Your task to perform on an android device: turn off priority inbox in the gmail app Image 0: 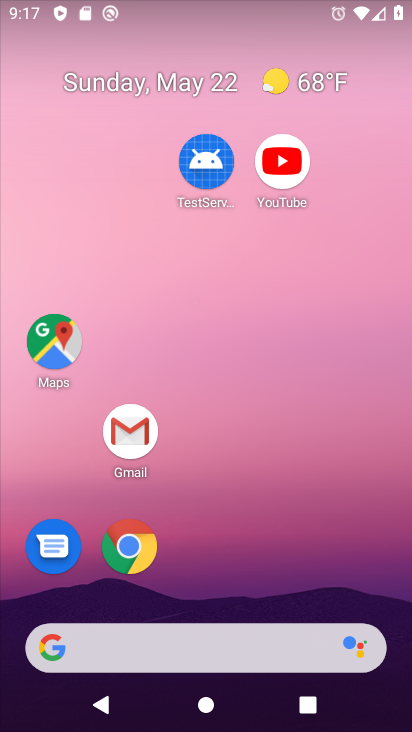
Step 0: drag from (229, 7) to (392, 217)
Your task to perform on an android device: turn off priority inbox in the gmail app Image 1: 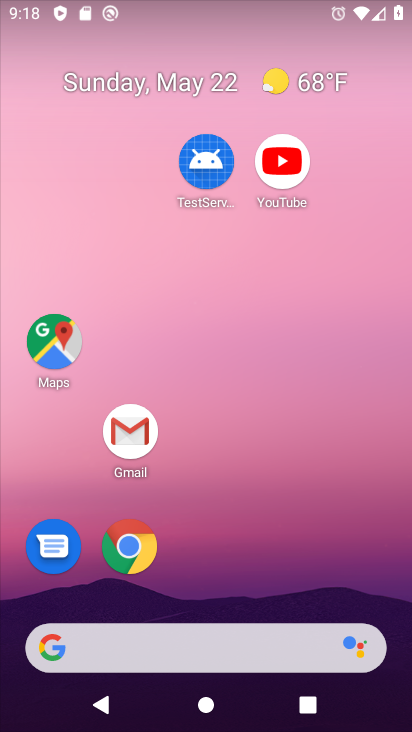
Step 1: click (278, 78)
Your task to perform on an android device: turn off priority inbox in the gmail app Image 2: 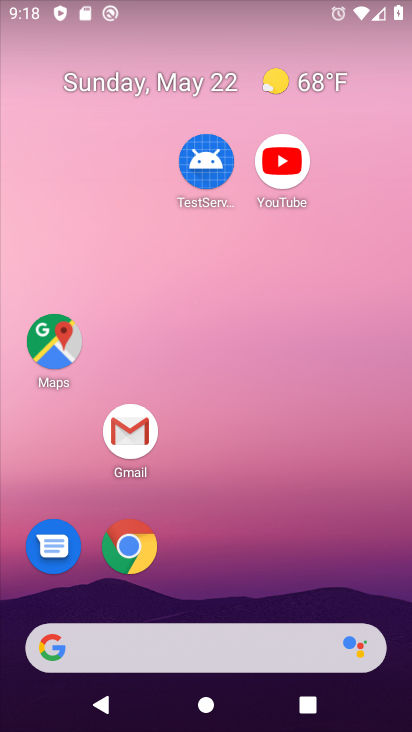
Step 2: click (253, 48)
Your task to perform on an android device: turn off priority inbox in the gmail app Image 3: 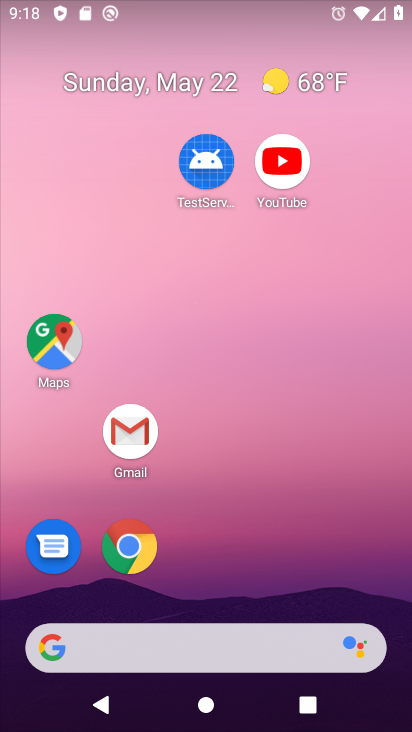
Step 3: click (243, 247)
Your task to perform on an android device: turn off priority inbox in the gmail app Image 4: 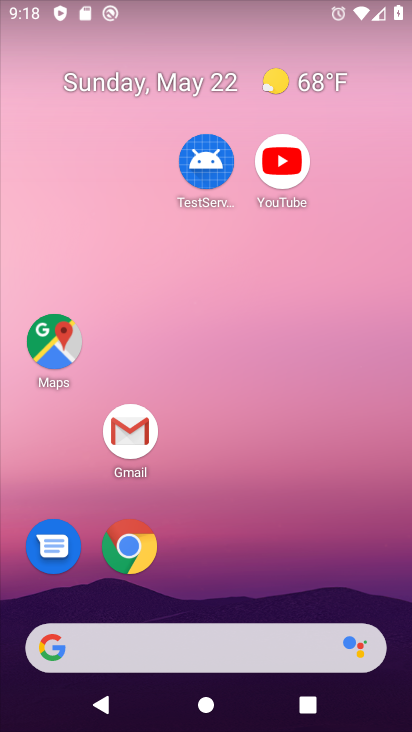
Step 4: click (240, 203)
Your task to perform on an android device: turn off priority inbox in the gmail app Image 5: 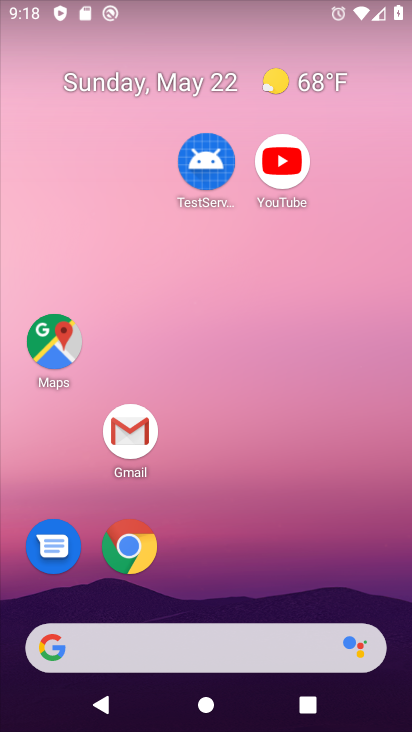
Step 5: click (255, 150)
Your task to perform on an android device: turn off priority inbox in the gmail app Image 6: 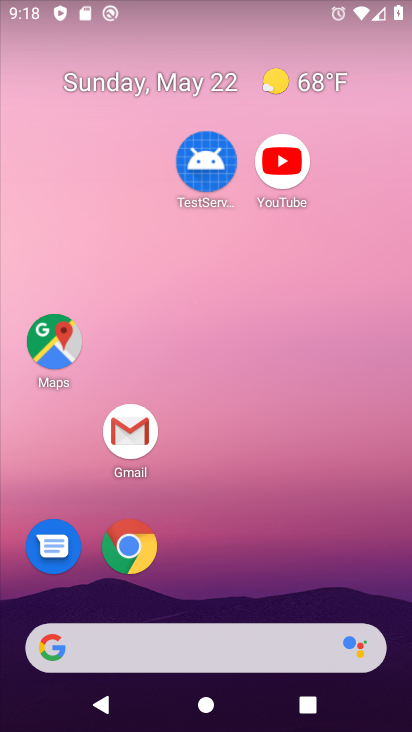
Step 6: drag from (299, 534) to (284, 256)
Your task to perform on an android device: turn off priority inbox in the gmail app Image 7: 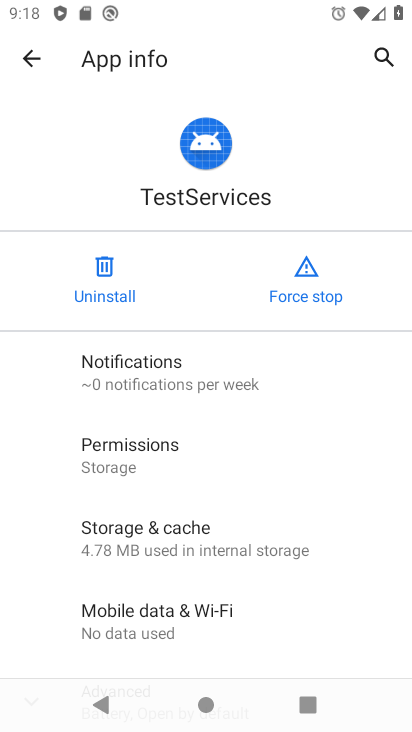
Step 7: drag from (211, 155) to (158, 83)
Your task to perform on an android device: turn off priority inbox in the gmail app Image 8: 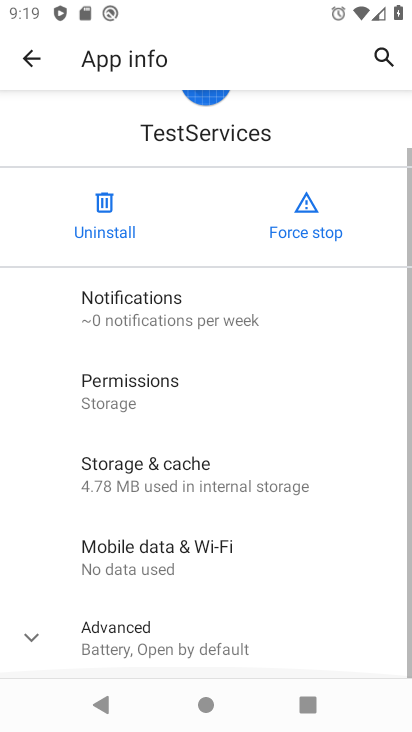
Step 8: drag from (184, 506) to (152, 76)
Your task to perform on an android device: turn off priority inbox in the gmail app Image 9: 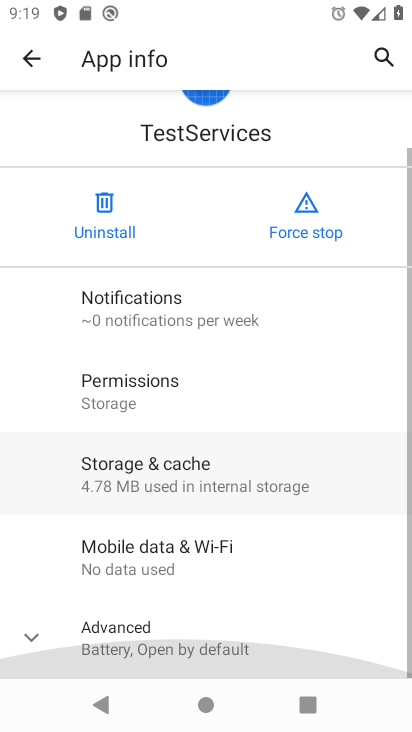
Step 9: drag from (208, 533) to (172, 63)
Your task to perform on an android device: turn off priority inbox in the gmail app Image 10: 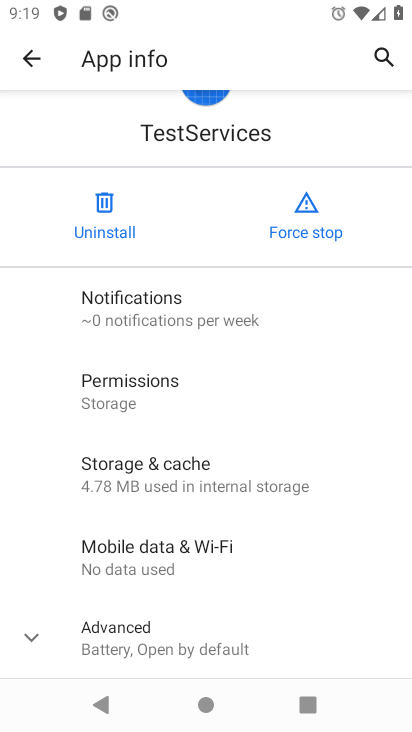
Step 10: drag from (189, 601) to (118, 141)
Your task to perform on an android device: turn off priority inbox in the gmail app Image 11: 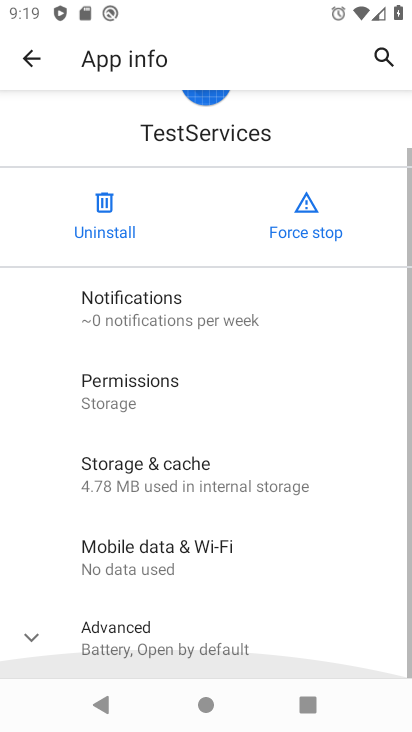
Step 11: drag from (177, 469) to (139, 55)
Your task to perform on an android device: turn off priority inbox in the gmail app Image 12: 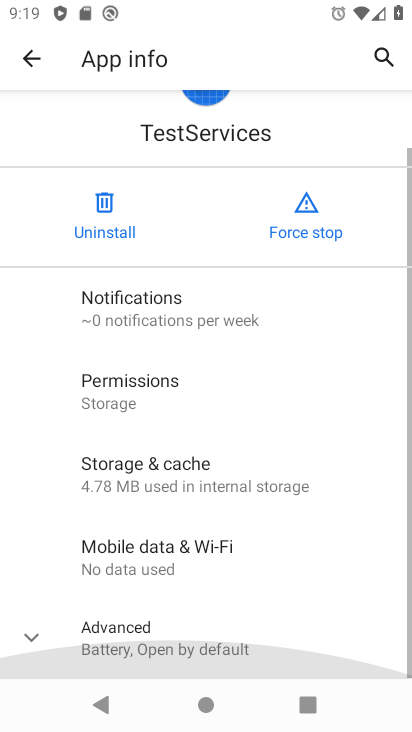
Step 12: drag from (166, 533) to (151, 175)
Your task to perform on an android device: turn off priority inbox in the gmail app Image 13: 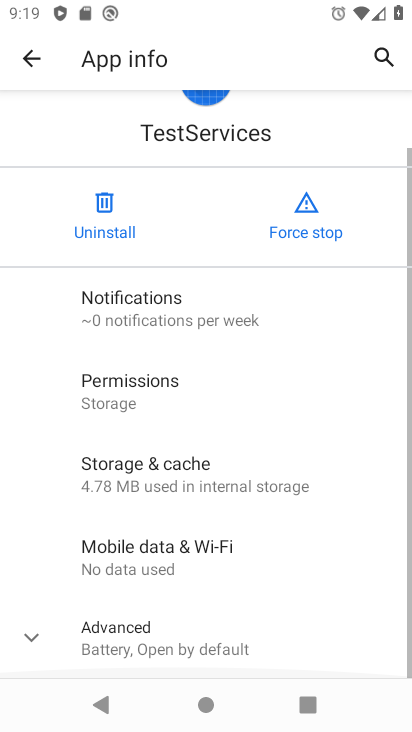
Step 13: click (28, 57)
Your task to perform on an android device: turn off priority inbox in the gmail app Image 14: 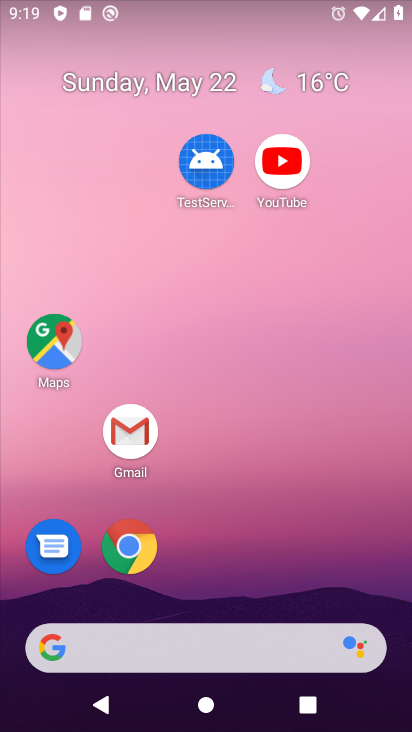
Step 14: drag from (249, 673) to (201, 106)
Your task to perform on an android device: turn off priority inbox in the gmail app Image 15: 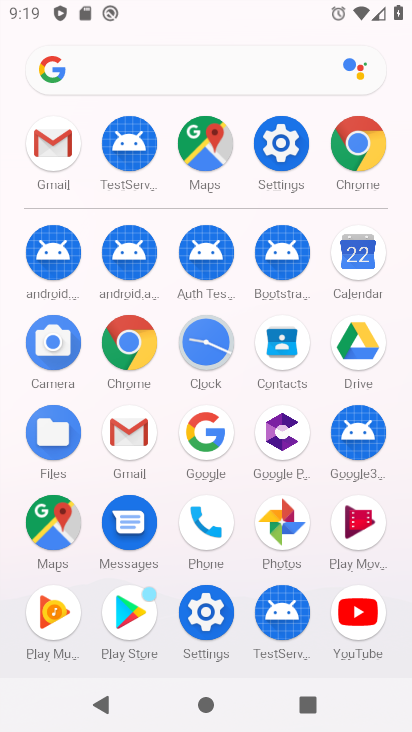
Step 15: click (248, 175)
Your task to perform on an android device: turn off priority inbox in the gmail app Image 16: 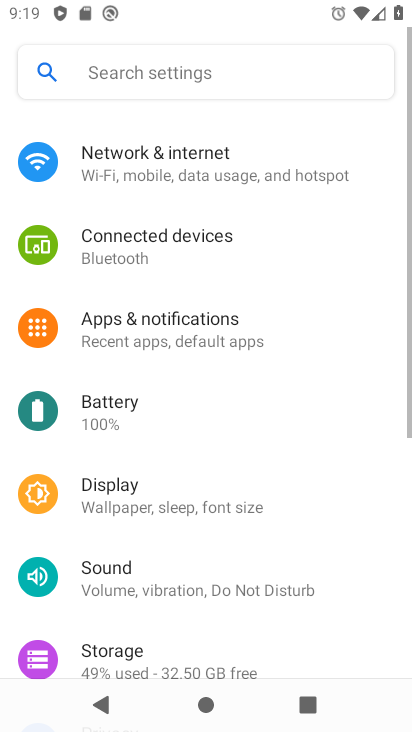
Step 16: drag from (261, 641) to (253, 174)
Your task to perform on an android device: turn off priority inbox in the gmail app Image 17: 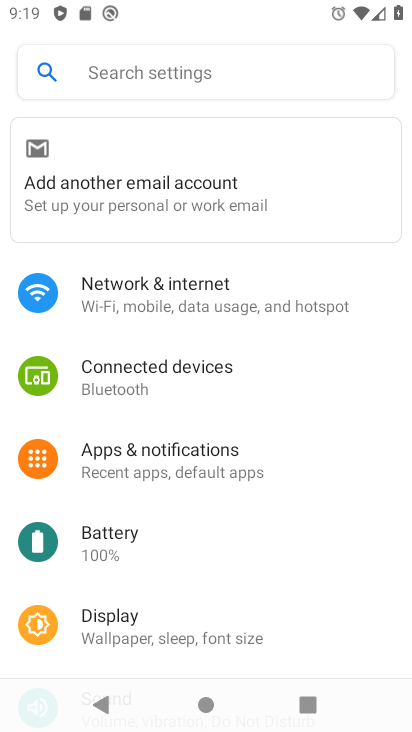
Step 17: click (236, 35)
Your task to perform on an android device: turn off priority inbox in the gmail app Image 18: 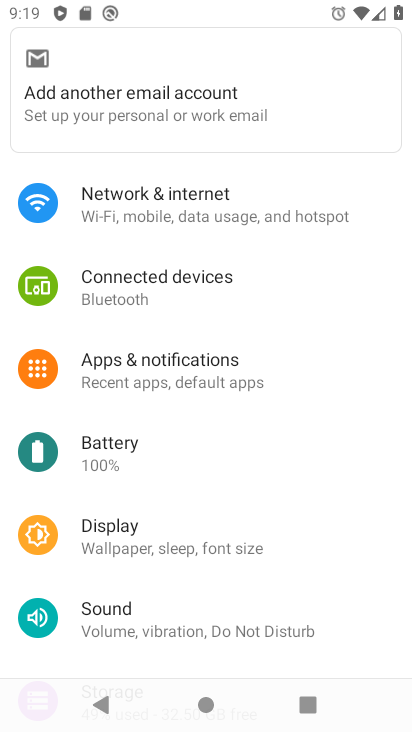
Step 18: drag from (236, 522) to (254, 0)
Your task to perform on an android device: turn off priority inbox in the gmail app Image 19: 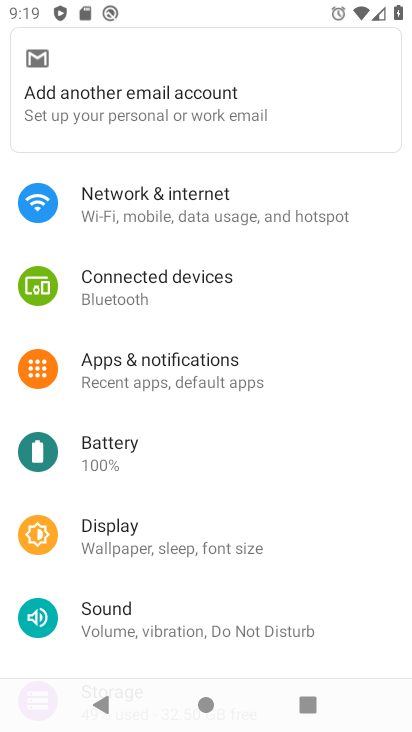
Step 19: click (153, 155)
Your task to perform on an android device: turn off priority inbox in the gmail app Image 20: 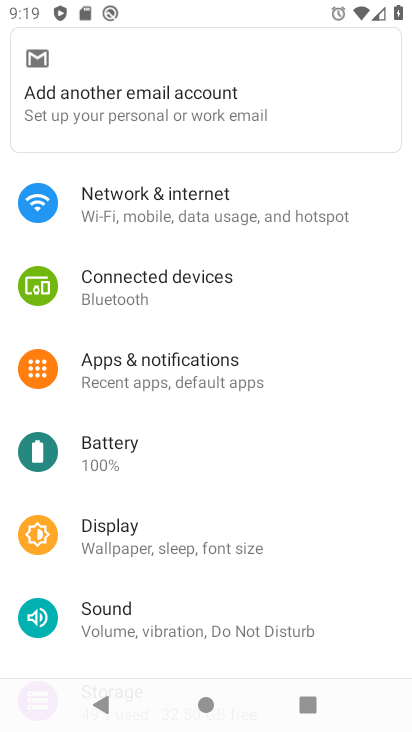
Step 20: click (211, 154)
Your task to perform on an android device: turn off priority inbox in the gmail app Image 21: 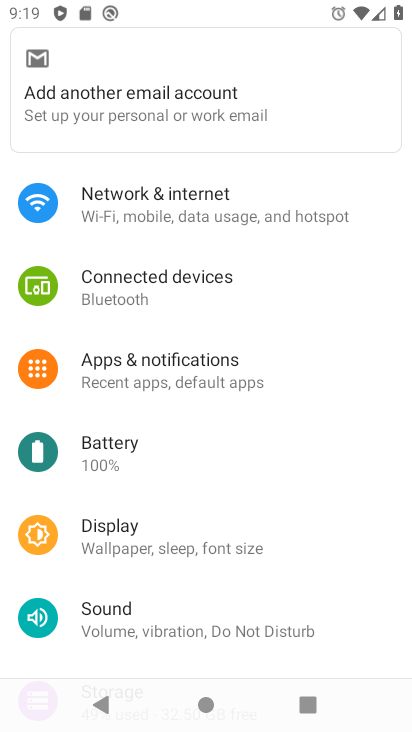
Step 21: click (243, 126)
Your task to perform on an android device: turn off priority inbox in the gmail app Image 22: 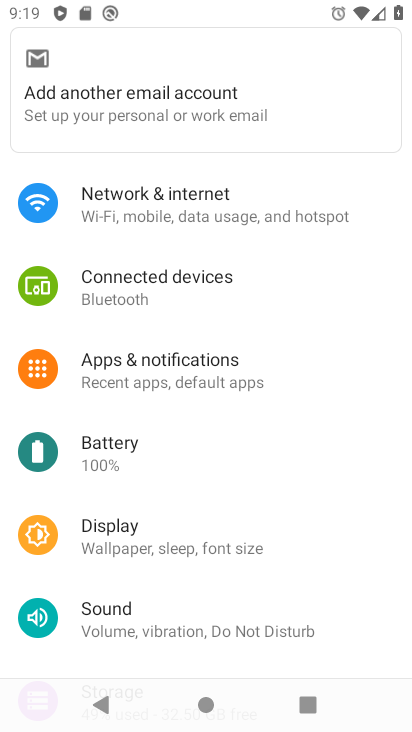
Step 22: drag from (150, 485) to (223, 125)
Your task to perform on an android device: turn off priority inbox in the gmail app Image 23: 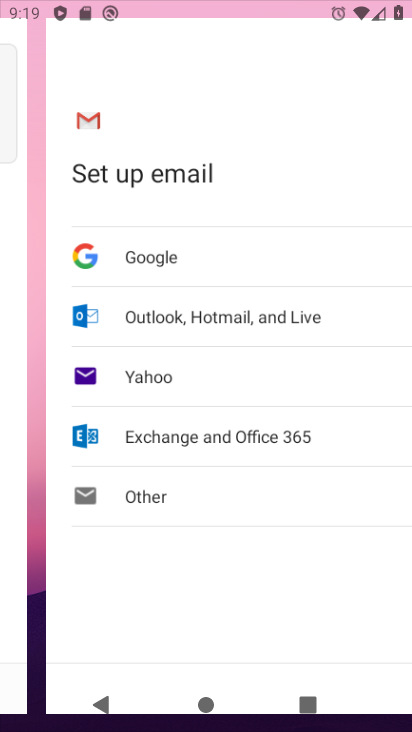
Step 23: drag from (241, 322) to (241, 24)
Your task to perform on an android device: turn off priority inbox in the gmail app Image 24: 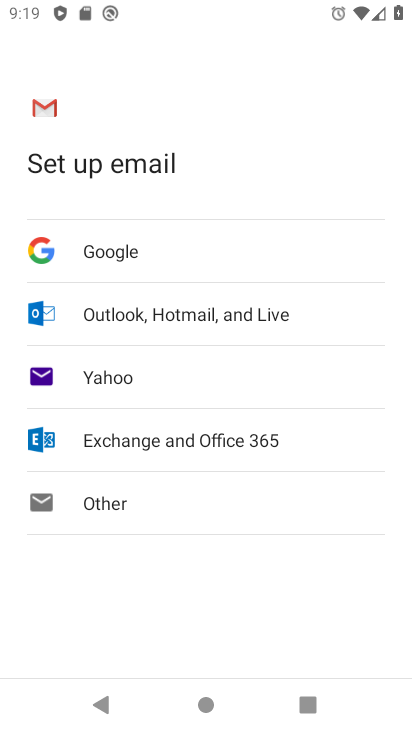
Step 24: press back button
Your task to perform on an android device: turn off priority inbox in the gmail app Image 25: 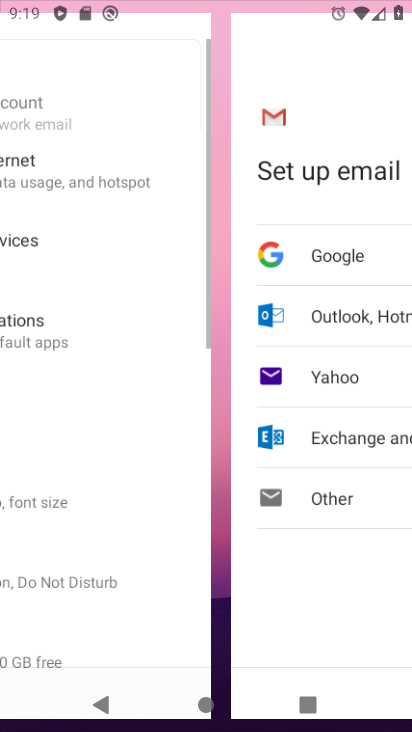
Step 25: press back button
Your task to perform on an android device: turn off priority inbox in the gmail app Image 26: 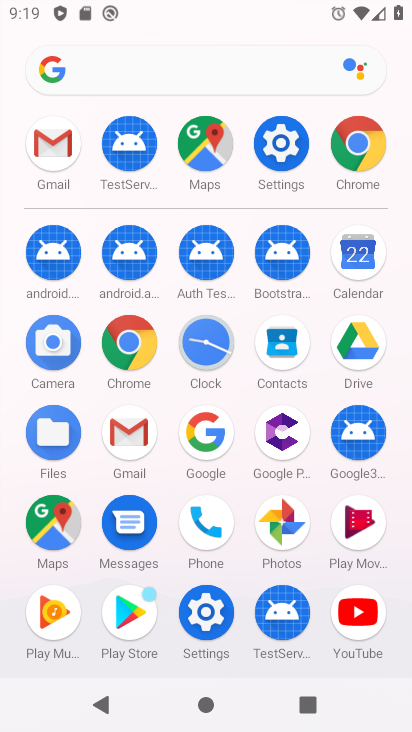
Step 26: click (124, 429)
Your task to perform on an android device: turn off priority inbox in the gmail app Image 27: 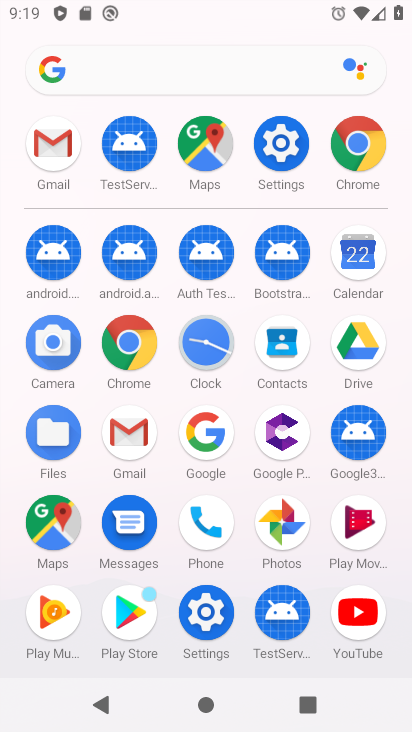
Step 27: click (129, 427)
Your task to perform on an android device: turn off priority inbox in the gmail app Image 28: 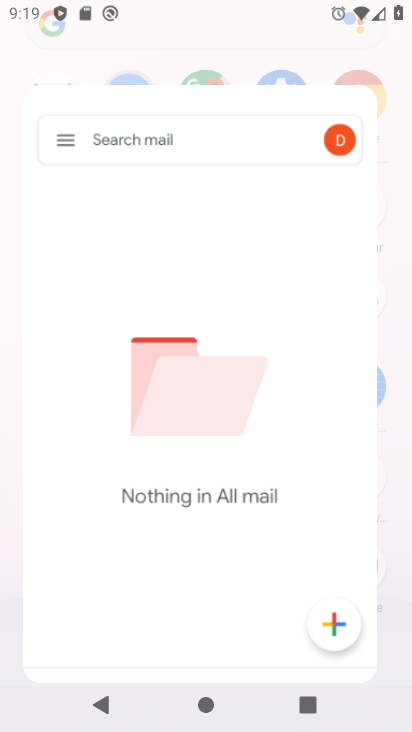
Step 28: click (133, 425)
Your task to perform on an android device: turn off priority inbox in the gmail app Image 29: 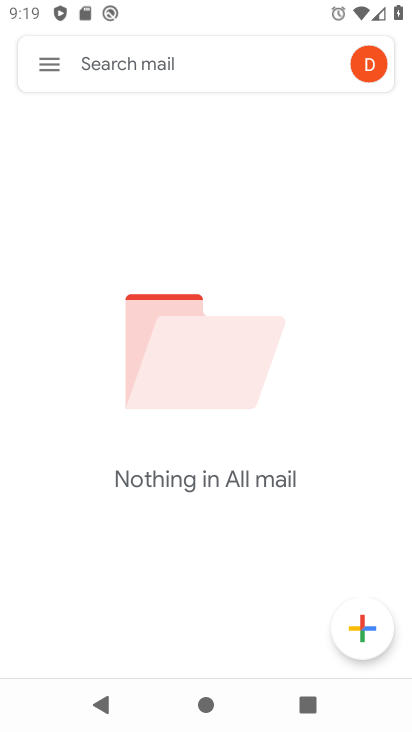
Step 29: click (135, 423)
Your task to perform on an android device: turn off priority inbox in the gmail app Image 30: 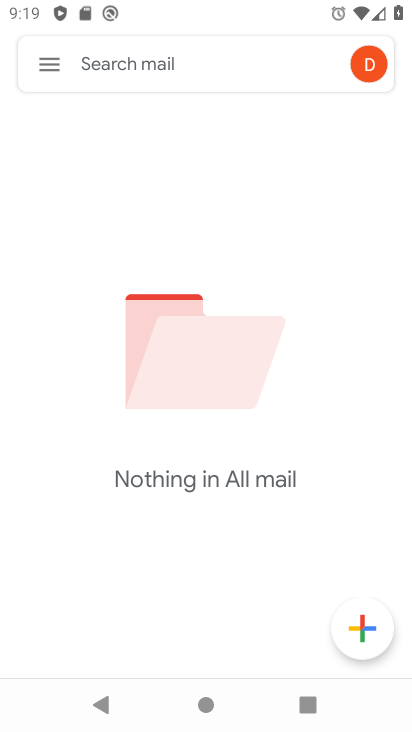
Step 30: click (45, 72)
Your task to perform on an android device: turn off priority inbox in the gmail app Image 31: 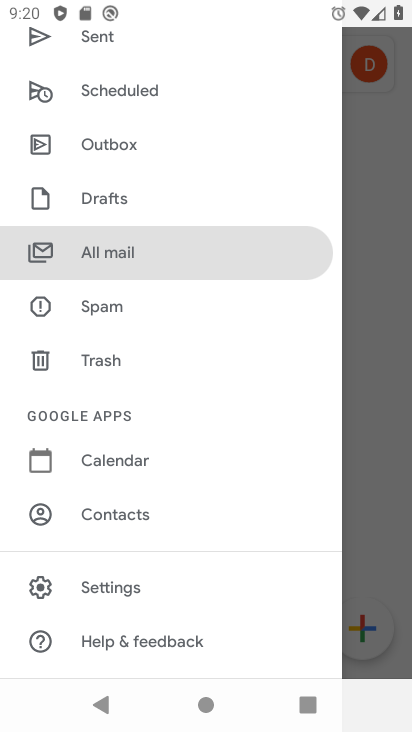
Step 31: click (105, 588)
Your task to perform on an android device: turn off priority inbox in the gmail app Image 32: 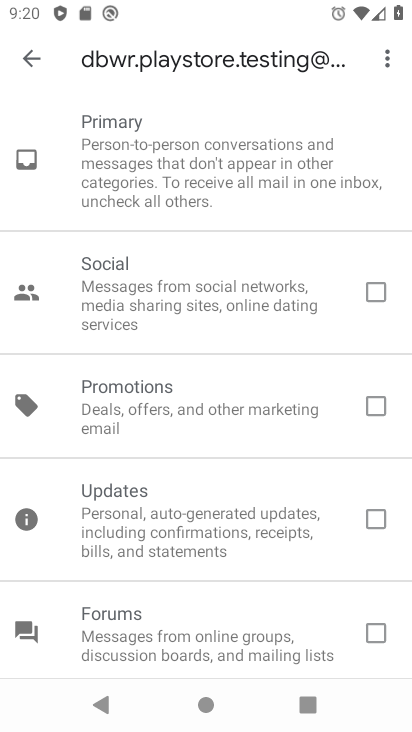
Step 32: click (27, 51)
Your task to perform on an android device: turn off priority inbox in the gmail app Image 33: 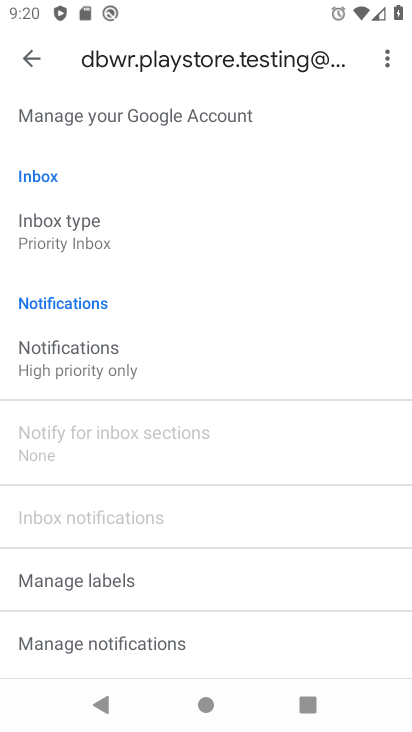
Step 33: click (67, 229)
Your task to perform on an android device: turn off priority inbox in the gmail app Image 34: 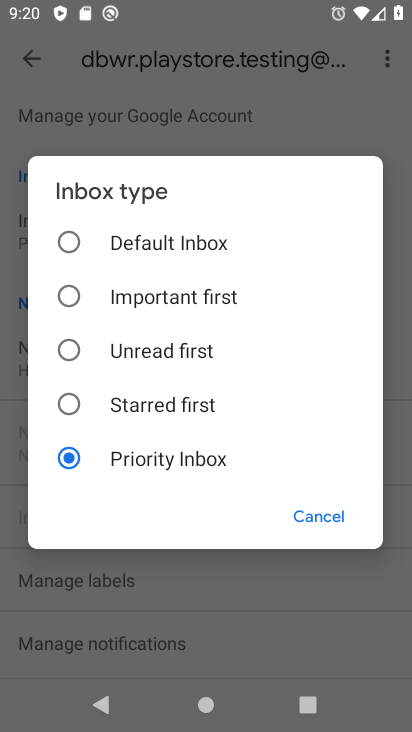
Step 34: click (68, 410)
Your task to perform on an android device: turn off priority inbox in the gmail app Image 35: 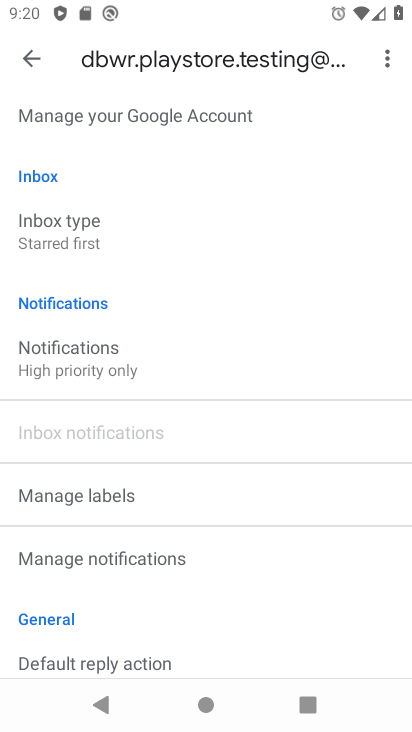
Step 35: task complete